Your task to perform on an android device: Open calendar and show me the fourth week of next month Image 0: 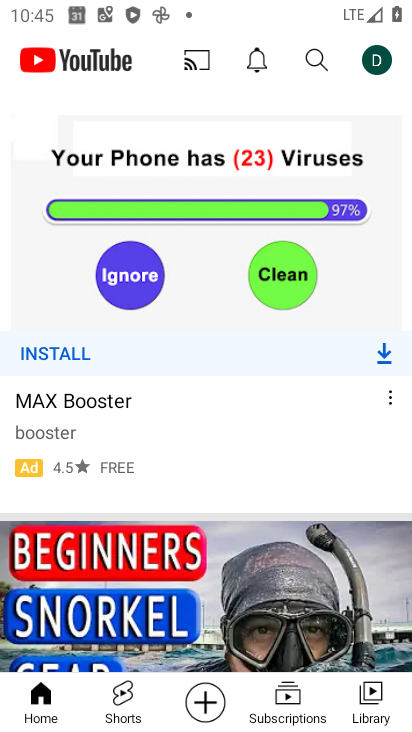
Step 0: drag from (281, 615) to (276, 70)
Your task to perform on an android device: Open calendar and show me the fourth week of next month Image 1: 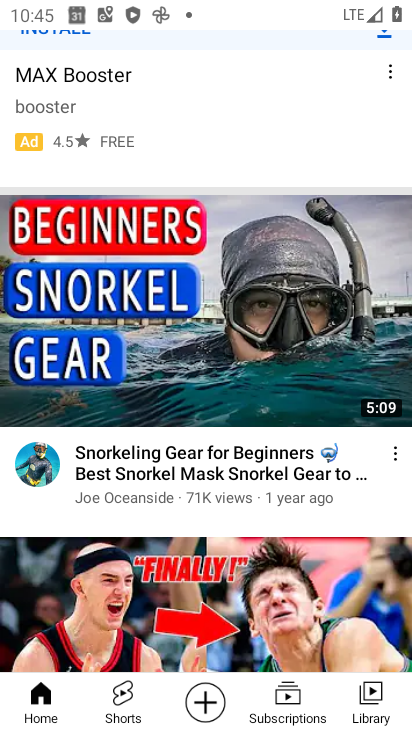
Step 1: drag from (354, 612) to (410, 20)
Your task to perform on an android device: Open calendar and show me the fourth week of next month Image 2: 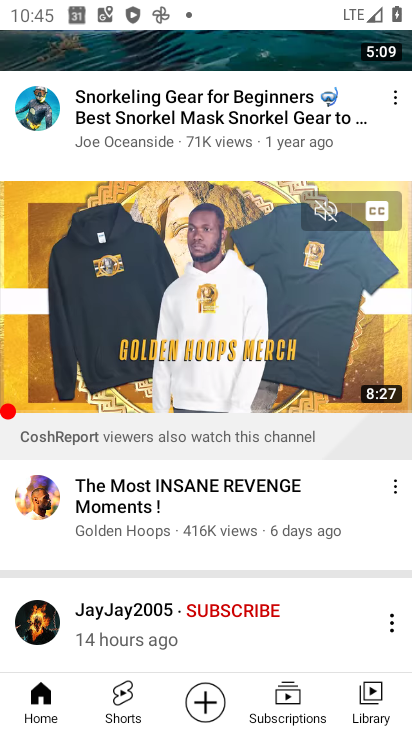
Step 2: press home button
Your task to perform on an android device: Open calendar and show me the fourth week of next month Image 3: 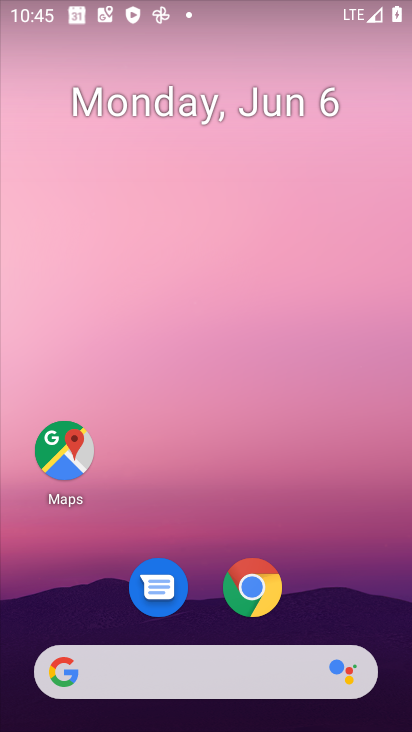
Step 3: drag from (285, 633) to (354, 12)
Your task to perform on an android device: Open calendar and show me the fourth week of next month Image 4: 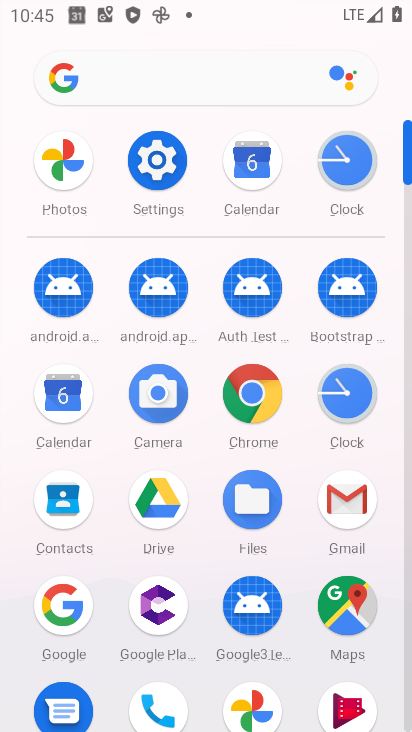
Step 4: click (267, 154)
Your task to perform on an android device: Open calendar and show me the fourth week of next month Image 5: 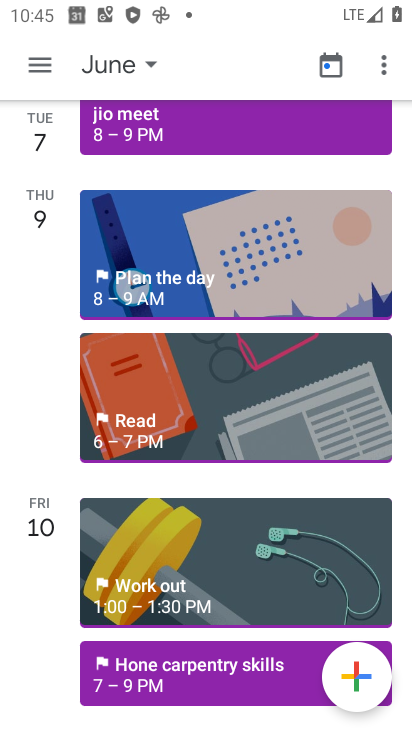
Step 5: click (125, 65)
Your task to perform on an android device: Open calendar and show me the fourth week of next month Image 6: 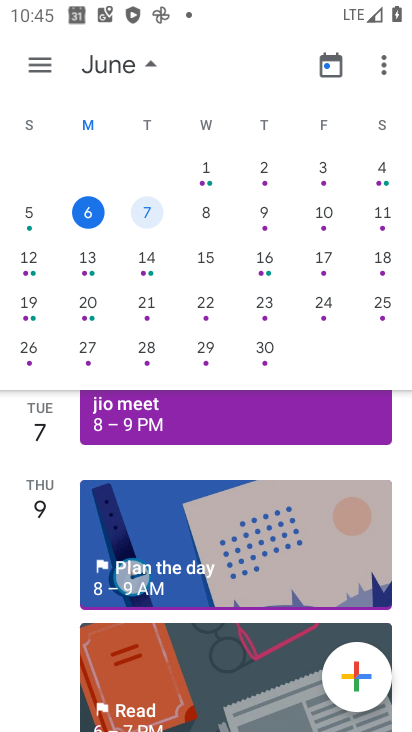
Step 6: drag from (315, 264) to (43, 278)
Your task to perform on an android device: Open calendar and show me the fourth week of next month Image 7: 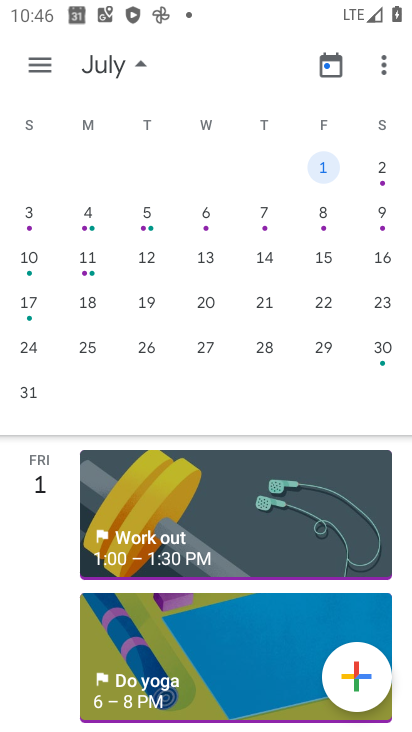
Step 7: click (381, 297)
Your task to perform on an android device: Open calendar and show me the fourth week of next month Image 8: 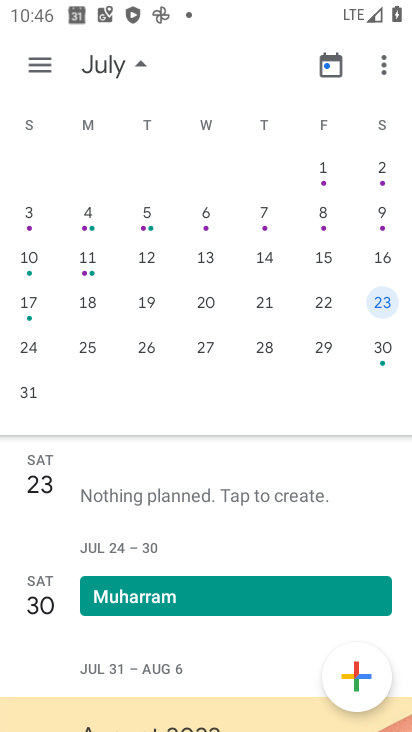
Step 8: task complete